Your task to perform on an android device: search for starred emails in the gmail app Image 0: 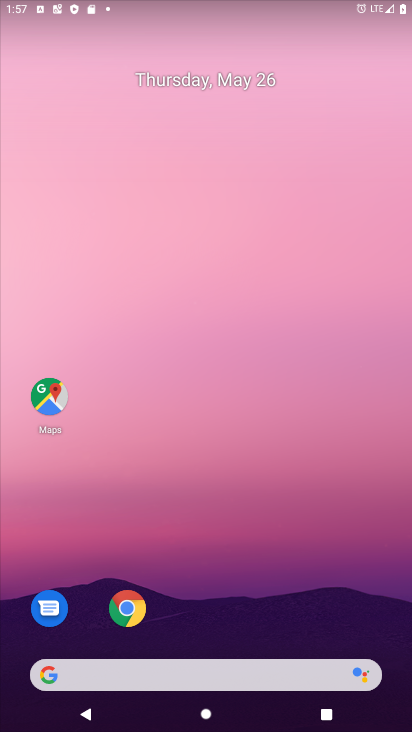
Step 0: drag from (378, 626) to (259, 125)
Your task to perform on an android device: search for starred emails in the gmail app Image 1: 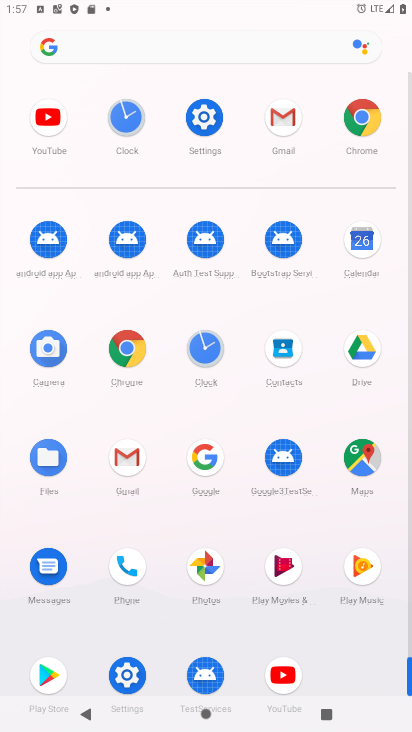
Step 1: click (125, 461)
Your task to perform on an android device: search for starred emails in the gmail app Image 2: 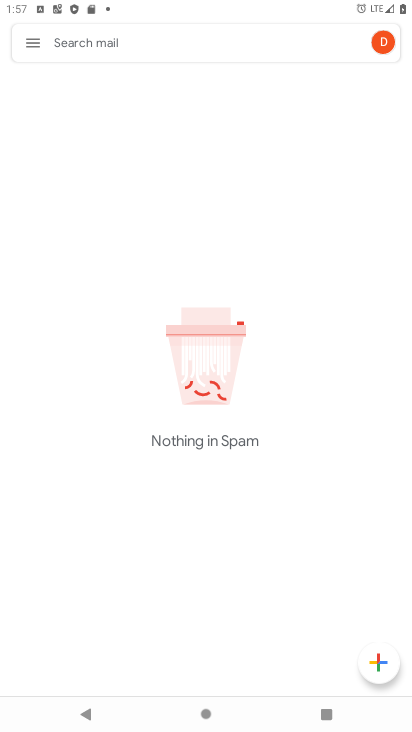
Step 2: click (35, 45)
Your task to perform on an android device: search for starred emails in the gmail app Image 3: 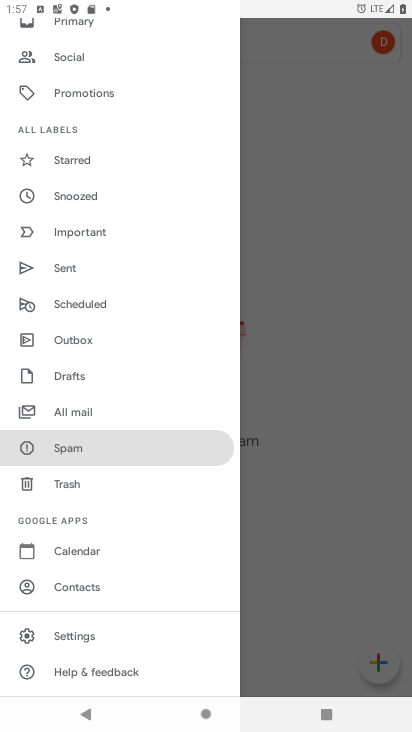
Step 3: click (85, 163)
Your task to perform on an android device: search for starred emails in the gmail app Image 4: 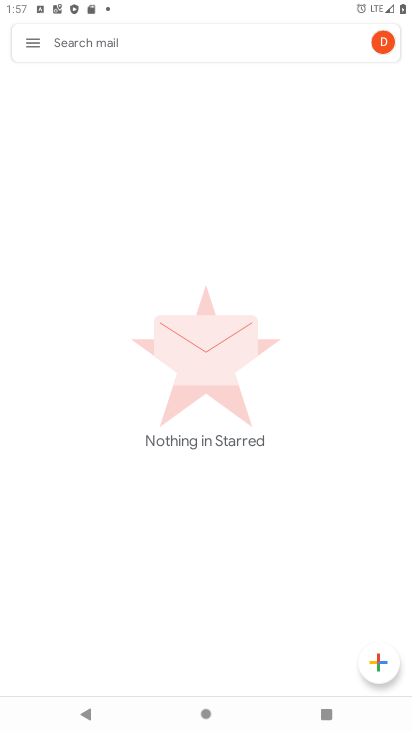
Step 4: task complete